Your task to perform on an android device: Open privacy settings Image 0: 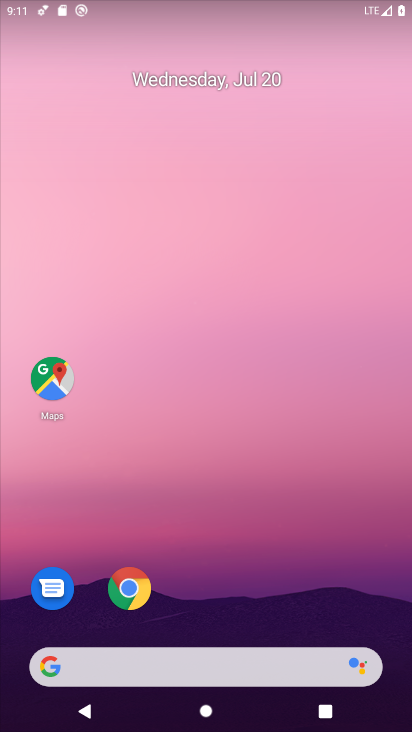
Step 0: press home button
Your task to perform on an android device: Open privacy settings Image 1: 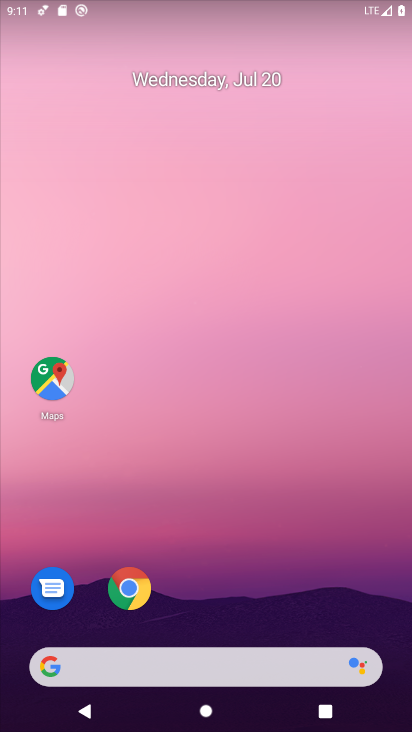
Step 1: drag from (219, 626) to (254, 111)
Your task to perform on an android device: Open privacy settings Image 2: 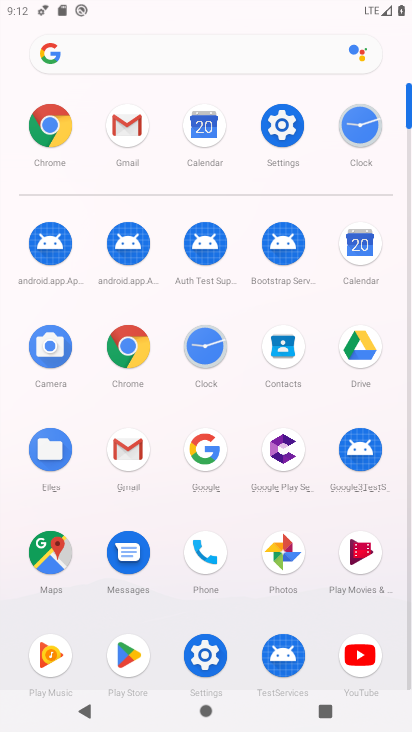
Step 2: click (274, 115)
Your task to perform on an android device: Open privacy settings Image 3: 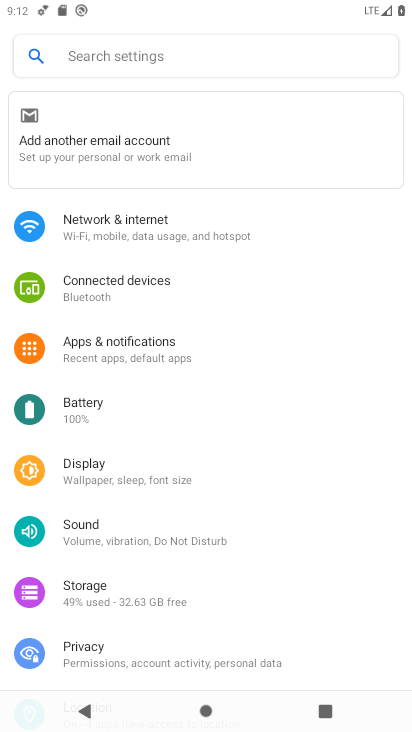
Step 3: click (121, 643)
Your task to perform on an android device: Open privacy settings Image 4: 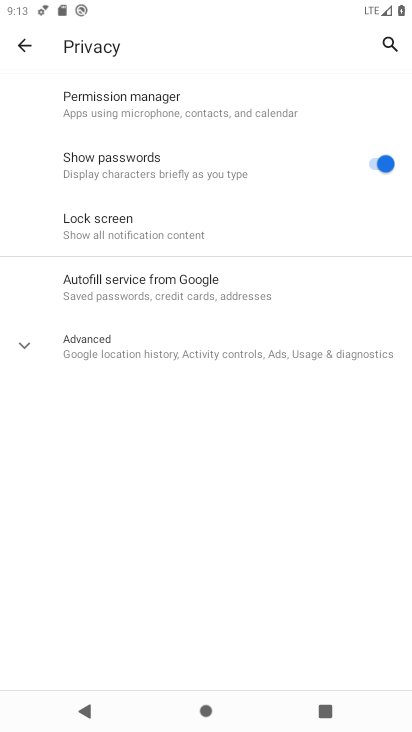
Step 4: click (23, 344)
Your task to perform on an android device: Open privacy settings Image 5: 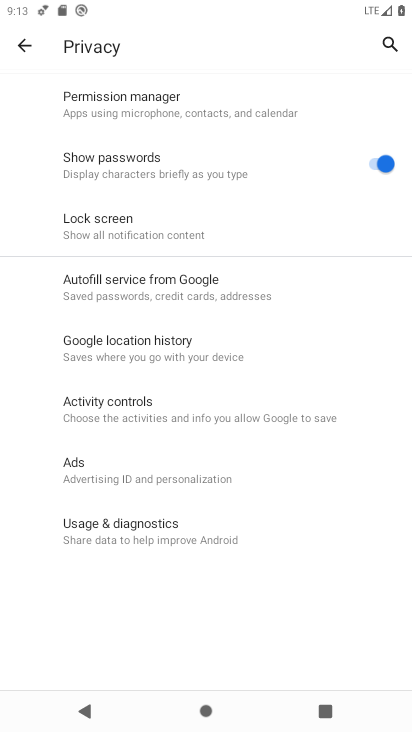
Step 5: task complete